Your task to perform on an android device: search for starred emails in the gmail app Image 0: 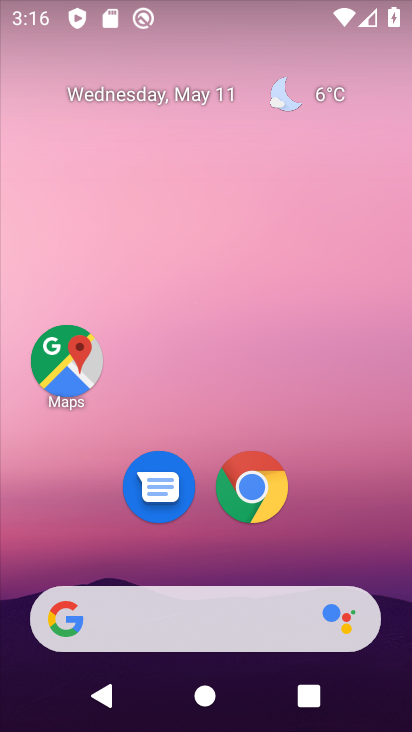
Step 0: drag from (203, 588) to (256, 270)
Your task to perform on an android device: search for starred emails in the gmail app Image 1: 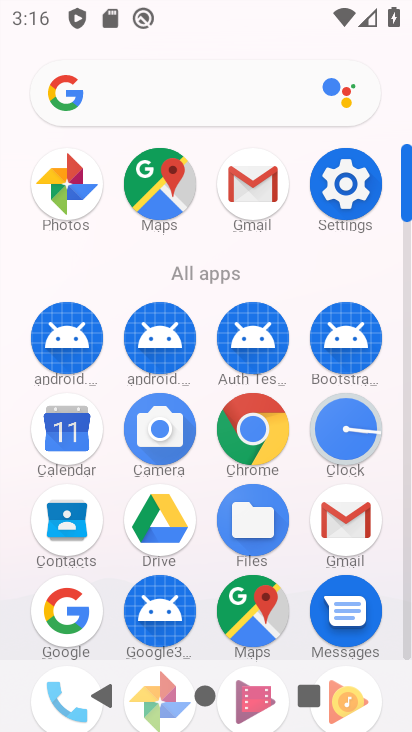
Step 1: click (355, 526)
Your task to perform on an android device: search for starred emails in the gmail app Image 2: 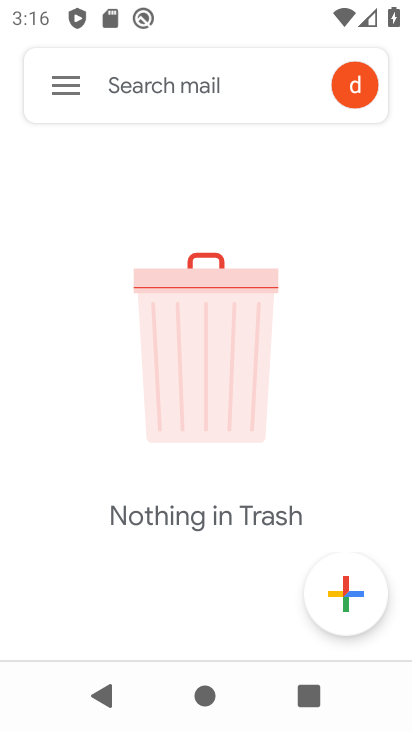
Step 2: click (75, 94)
Your task to perform on an android device: search for starred emails in the gmail app Image 3: 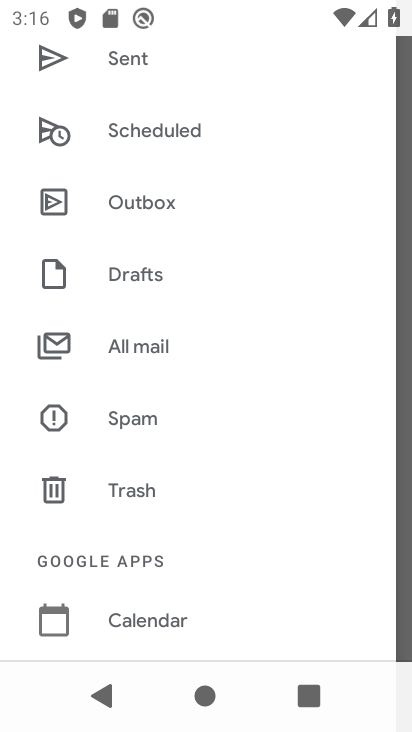
Step 3: drag from (189, 200) to (168, 630)
Your task to perform on an android device: search for starred emails in the gmail app Image 4: 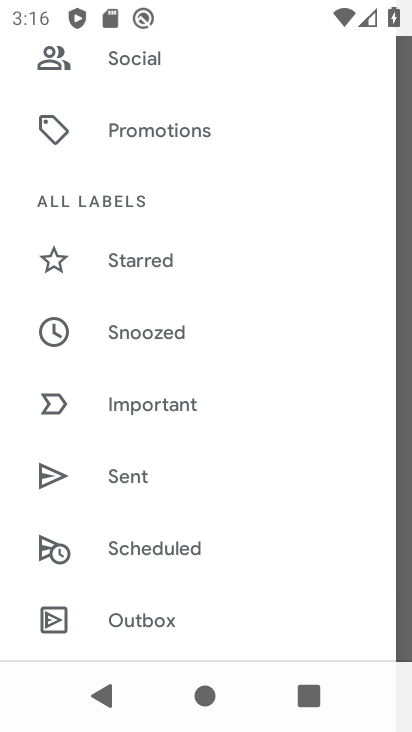
Step 4: click (180, 254)
Your task to perform on an android device: search for starred emails in the gmail app Image 5: 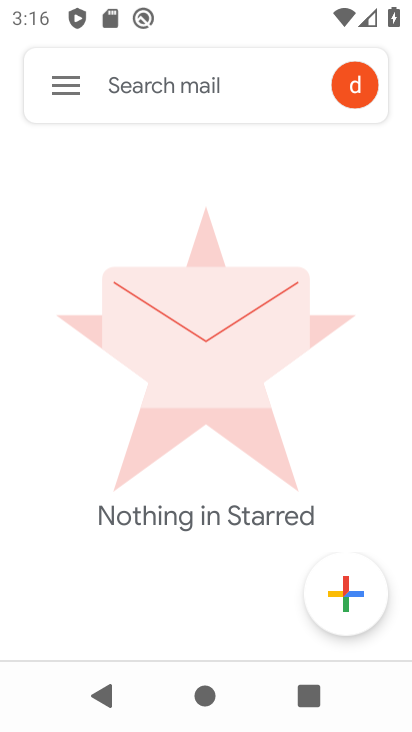
Step 5: task complete